Your task to perform on an android device: change notification settings in the gmail app Image 0: 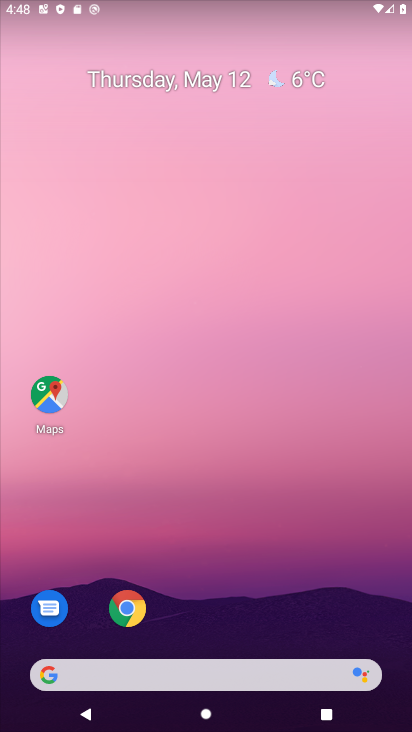
Step 0: drag from (308, 568) to (217, 148)
Your task to perform on an android device: change notification settings in the gmail app Image 1: 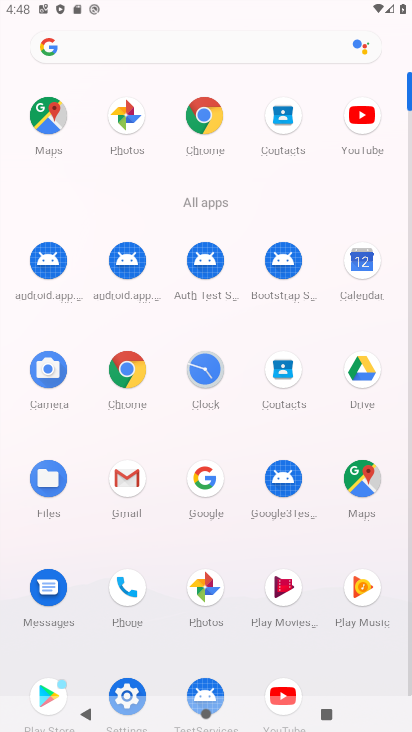
Step 1: click (129, 474)
Your task to perform on an android device: change notification settings in the gmail app Image 2: 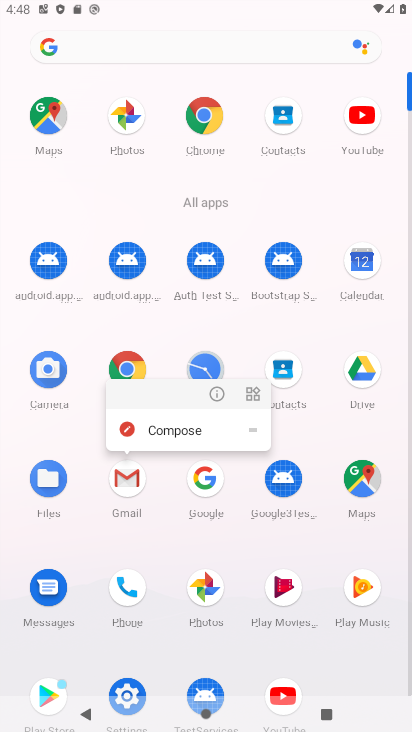
Step 2: click (215, 391)
Your task to perform on an android device: change notification settings in the gmail app Image 3: 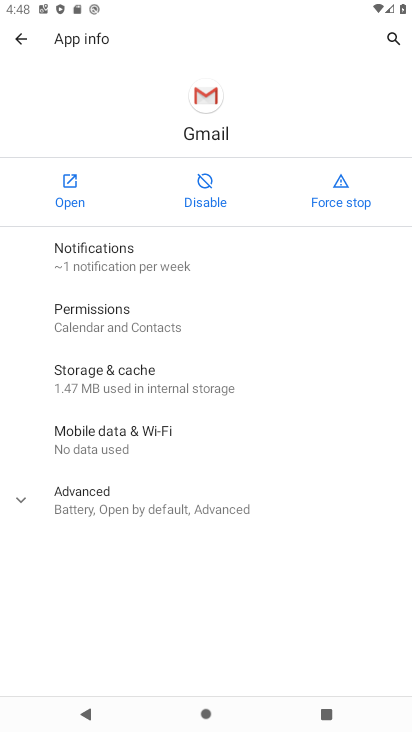
Step 3: click (136, 259)
Your task to perform on an android device: change notification settings in the gmail app Image 4: 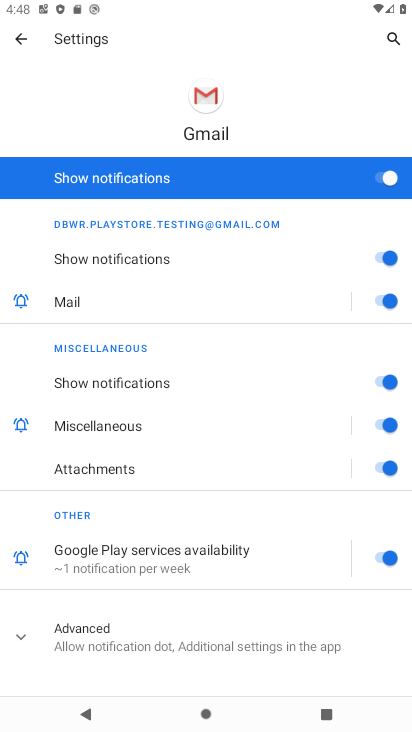
Step 4: click (381, 177)
Your task to perform on an android device: change notification settings in the gmail app Image 5: 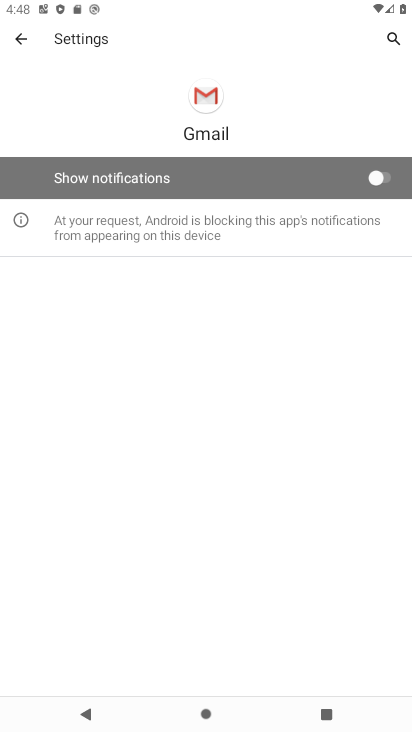
Step 5: task complete